Your task to perform on an android device: Go to Google maps Image 0: 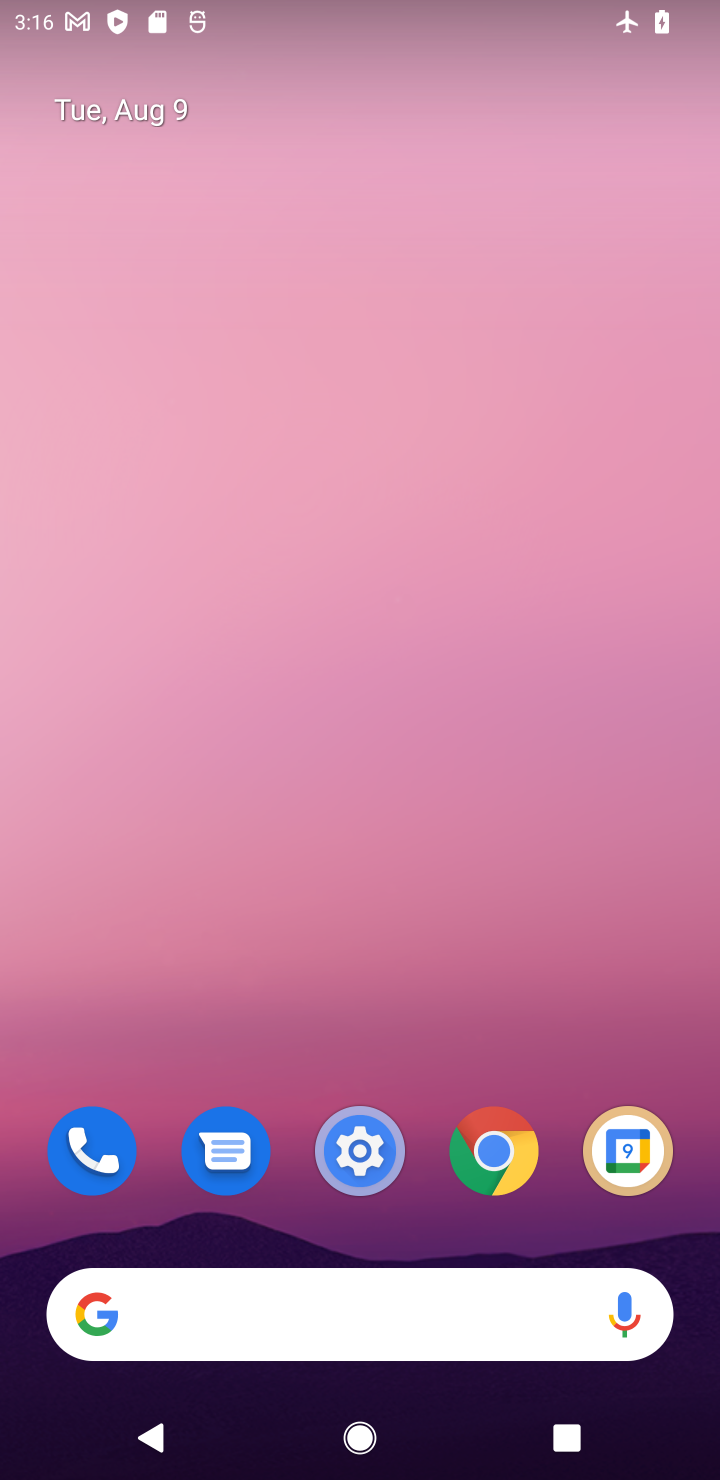
Step 0: drag from (257, 663) to (337, 218)
Your task to perform on an android device: Go to Google maps Image 1: 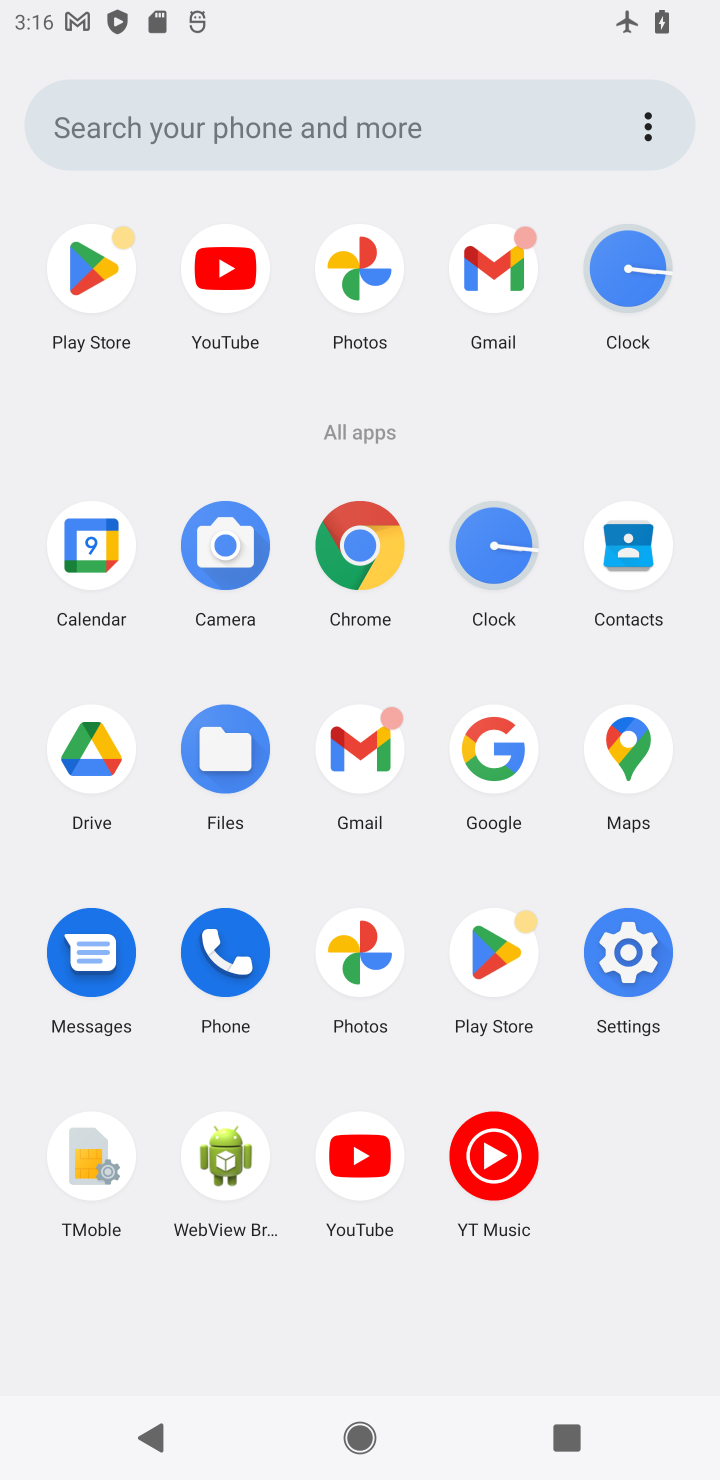
Step 1: click (653, 754)
Your task to perform on an android device: Go to Google maps Image 2: 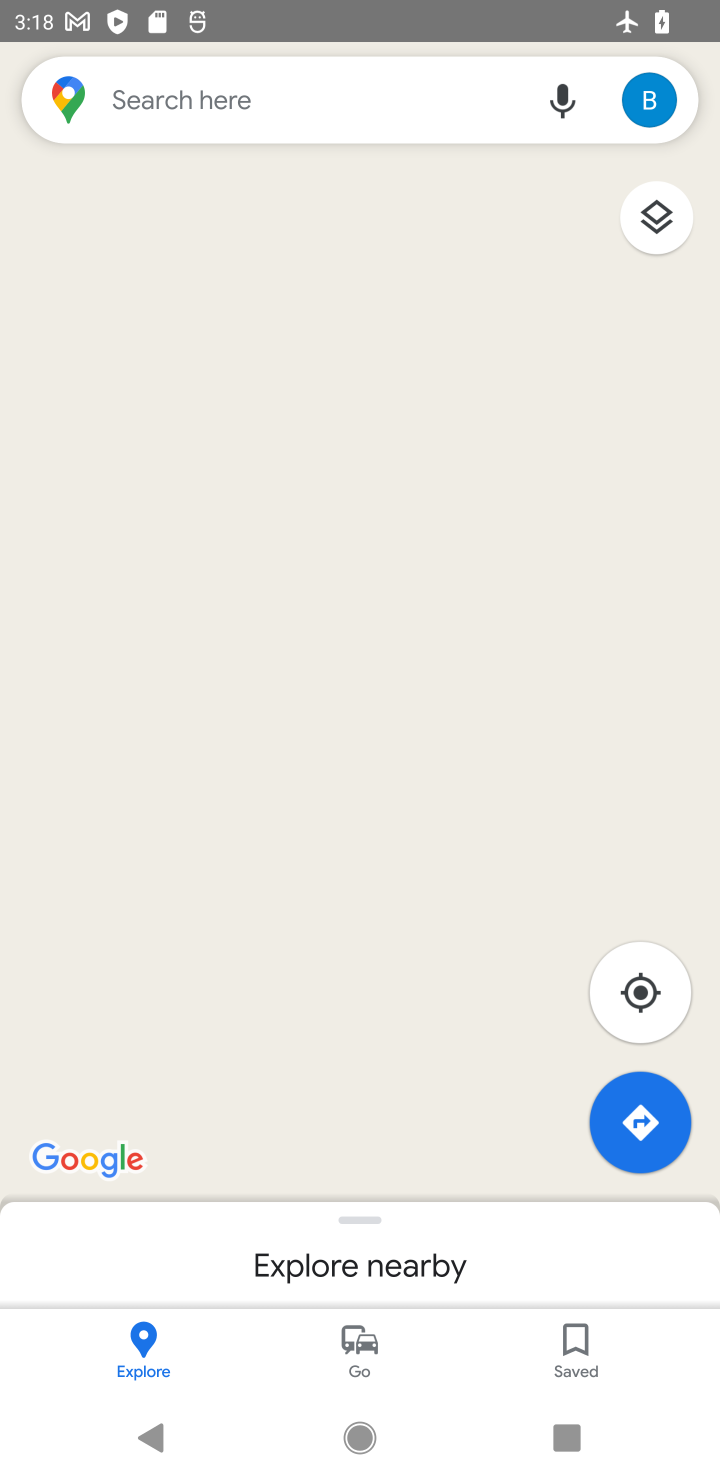
Step 2: task complete